Your task to perform on an android device: turn off wifi Image 0: 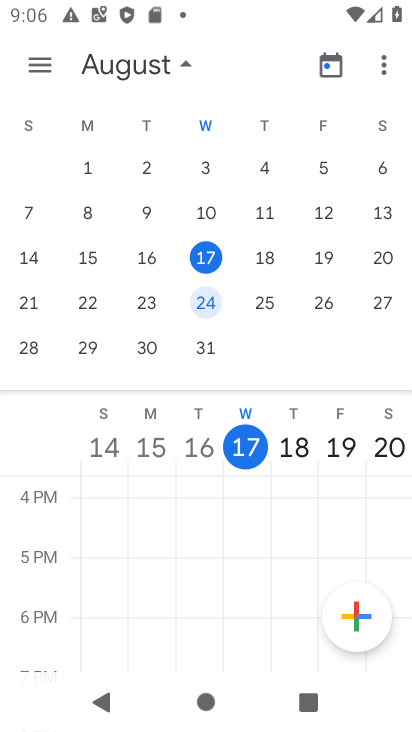
Step 0: drag from (207, 17) to (232, 358)
Your task to perform on an android device: turn off wifi Image 1: 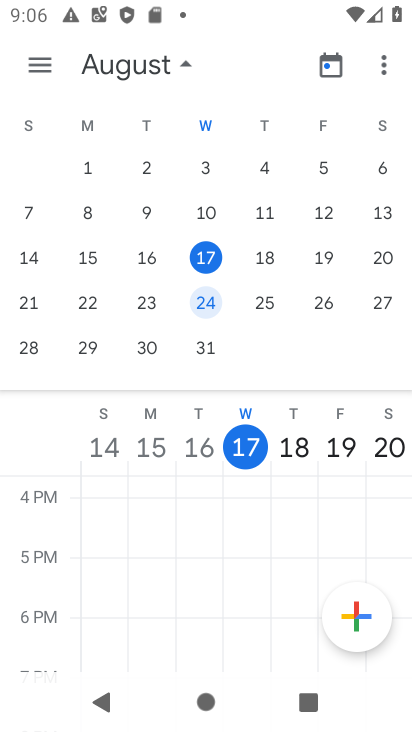
Step 1: drag from (239, 13) to (215, 453)
Your task to perform on an android device: turn off wifi Image 2: 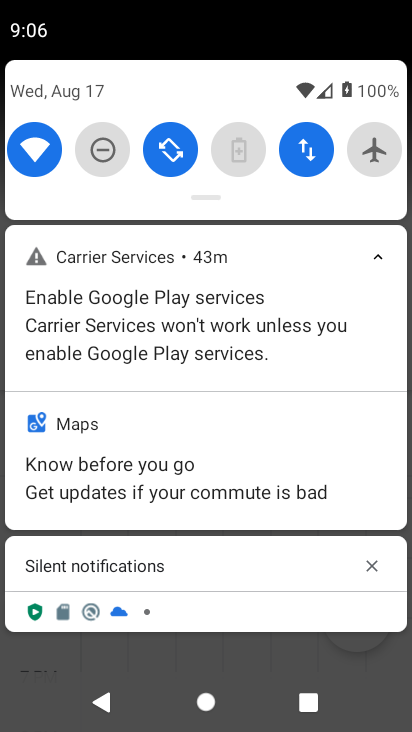
Step 2: click (38, 147)
Your task to perform on an android device: turn off wifi Image 3: 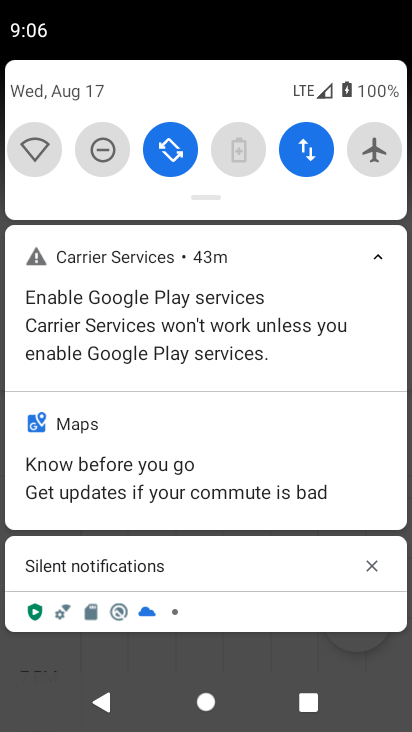
Step 3: task complete